Your task to perform on an android device: check out phone information Image 0: 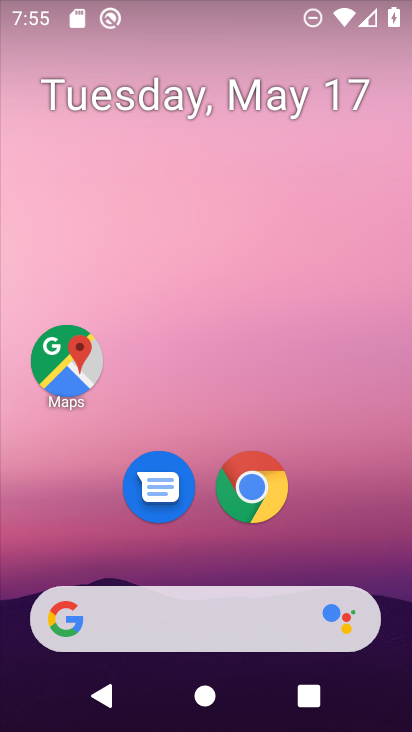
Step 0: drag from (241, 650) to (287, 152)
Your task to perform on an android device: check out phone information Image 1: 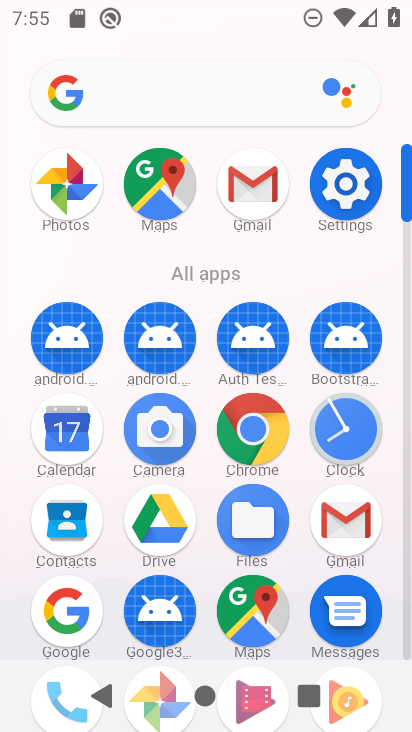
Step 1: click (337, 216)
Your task to perform on an android device: check out phone information Image 2: 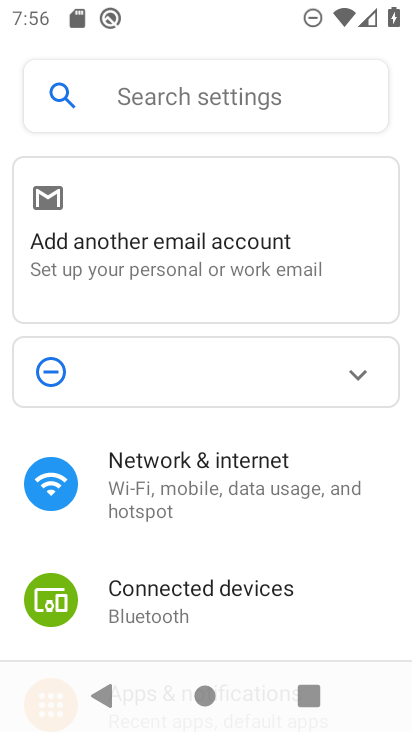
Step 2: click (154, 111)
Your task to perform on an android device: check out phone information Image 3: 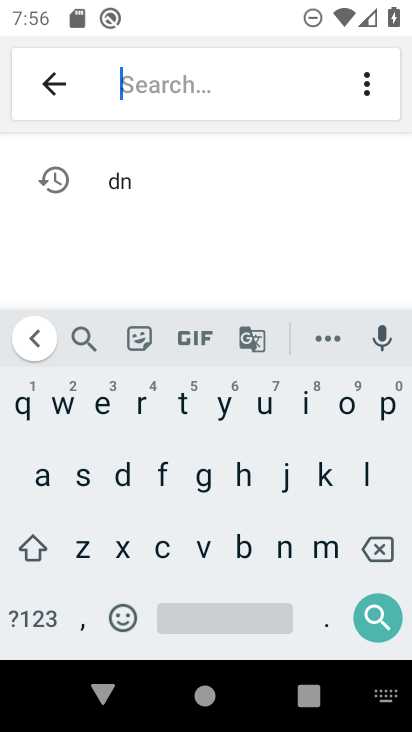
Step 3: click (49, 477)
Your task to perform on an android device: check out phone information Image 4: 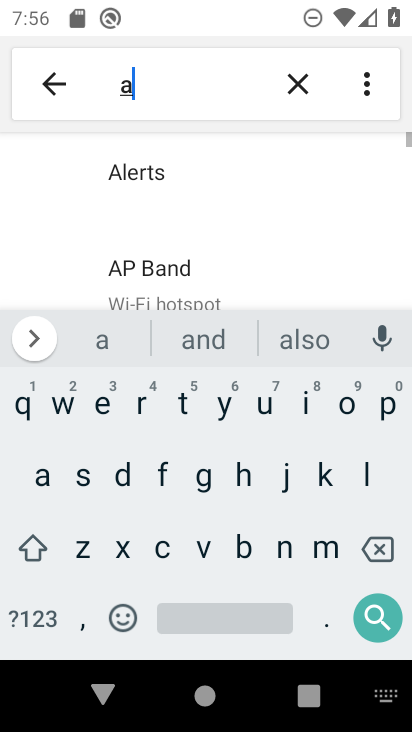
Step 4: click (246, 554)
Your task to perform on an android device: check out phone information Image 5: 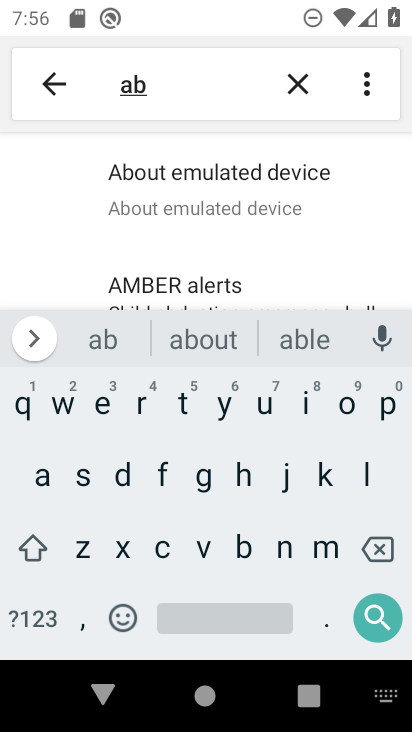
Step 5: click (176, 192)
Your task to perform on an android device: check out phone information Image 6: 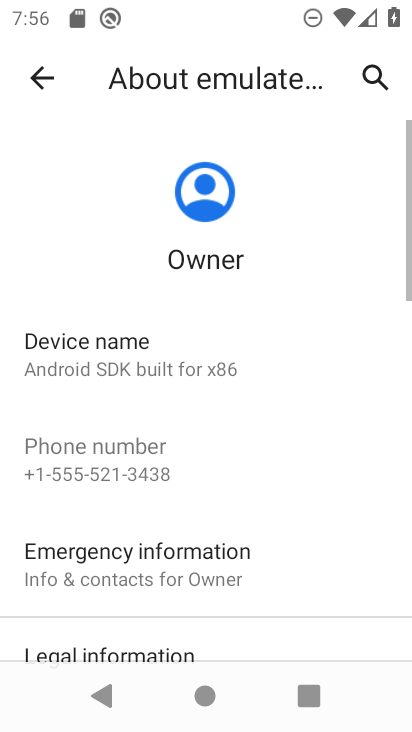
Step 6: task complete